Your task to perform on an android device: change alarm snooze length Image 0: 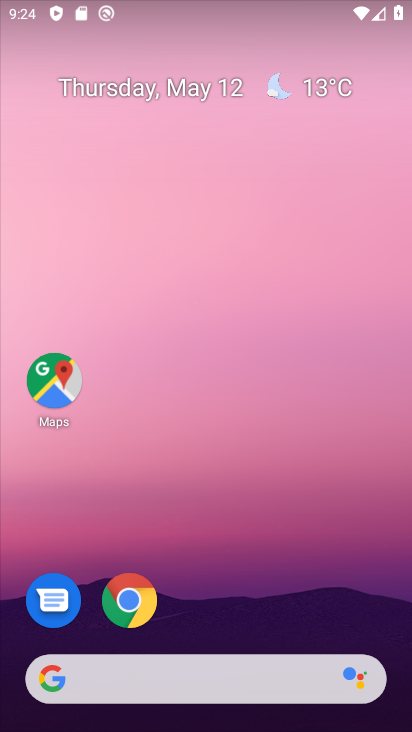
Step 0: drag from (217, 577) to (345, 59)
Your task to perform on an android device: change alarm snooze length Image 1: 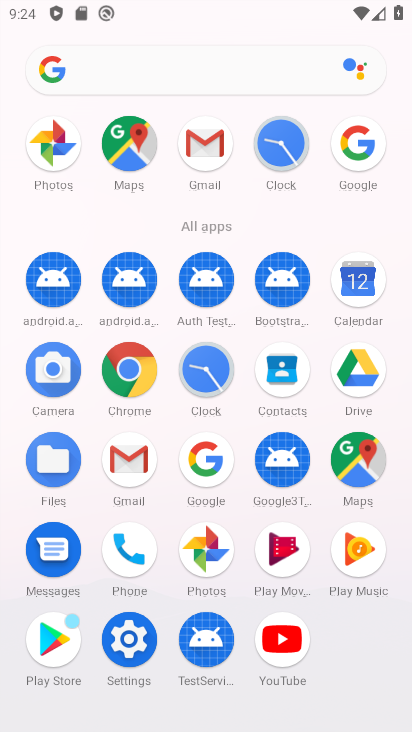
Step 1: click (285, 142)
Your task to perform on an android device: change alarm snooze length Image 2: 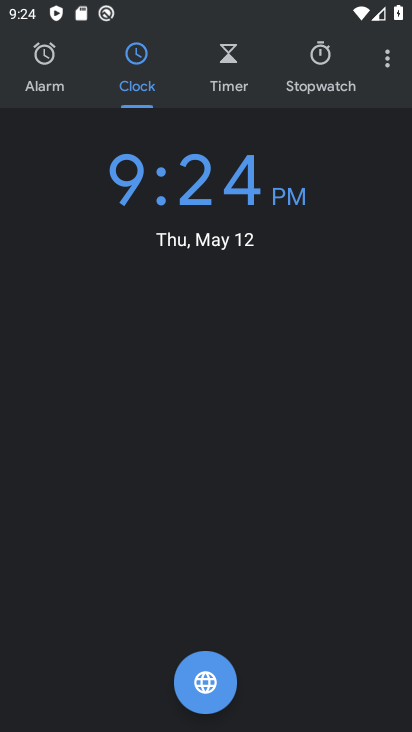
Step 2: click (375, 59)
Your task to perform on an android device: change alarm snooze length Image 3: 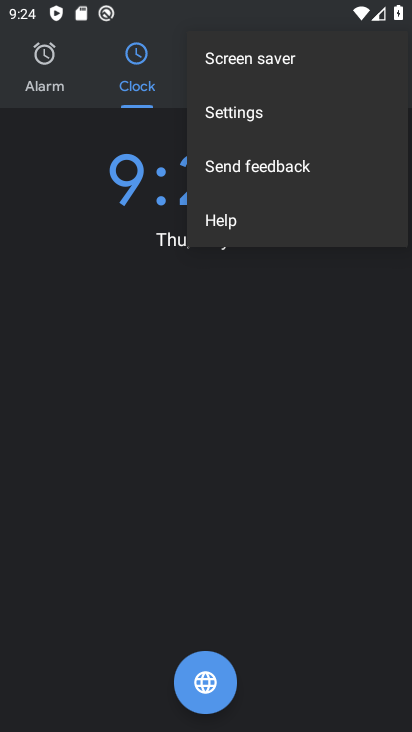
Step 3: click (277, 119)
Your task to perform on an android device: change alarm snooze length Image 4: 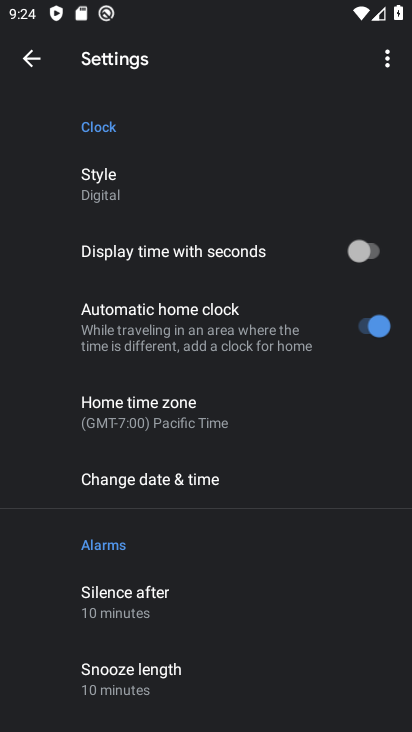
Step 4: click (150, 678)
Your task to perform on an android device: change alarm snooze length Image 5: 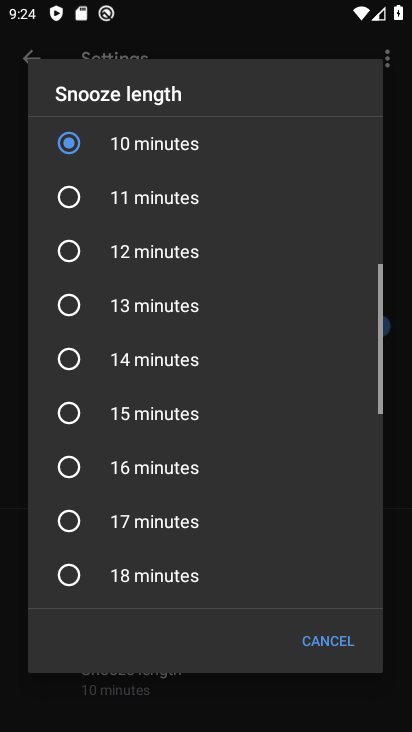
Step 5: click (79, 198)
Your task to perform on an android device: change alarm snooze length Image 6: 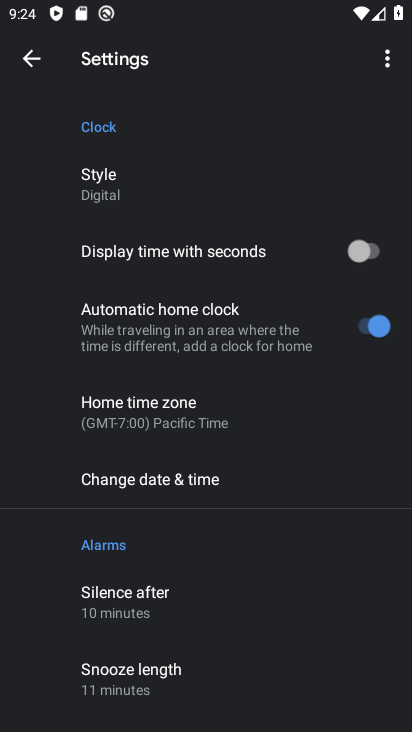
Step 6: task complete